Your task to perform on an android device: turn pop-ups on in chrome Image 0: 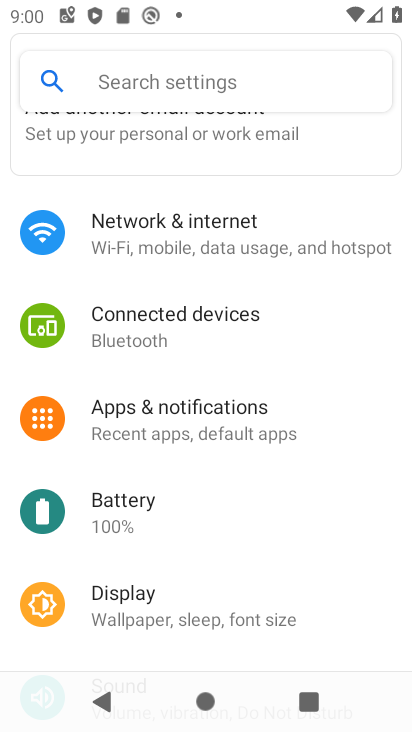
Step 0: press home button
Your task to perform on an android device: turn pop-ups on in chrome Image 1: 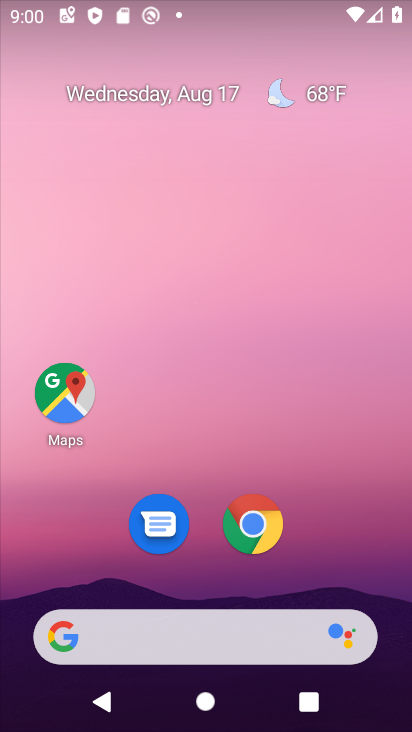
Step 1: click (256, 527)
Your task to perform on an android device: turn pop-ups on in chrome Image 2: 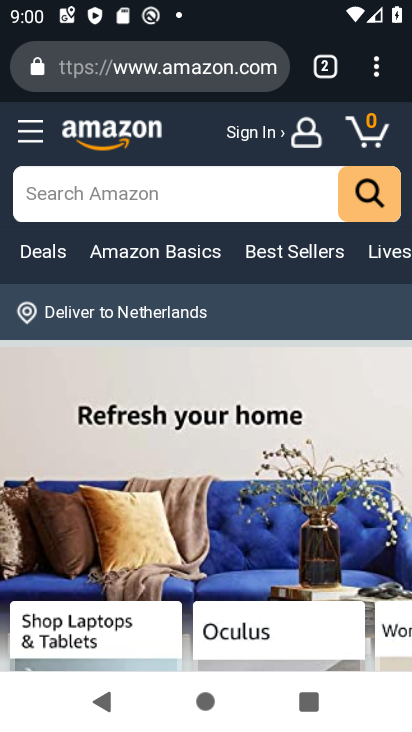
Step 2: click (382, 72)
Your task to perform on an android device: turn pop-ups on in chrome Image 3: 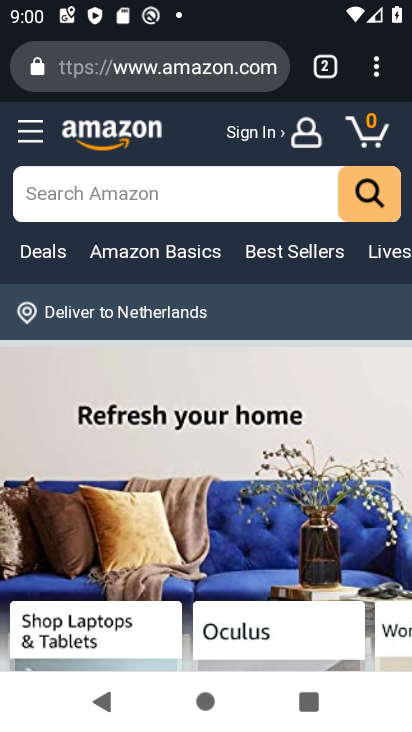
Step 3: click (376, 75)
Your task to perform on an android device: turn pop-ups on in chrome Image 4: 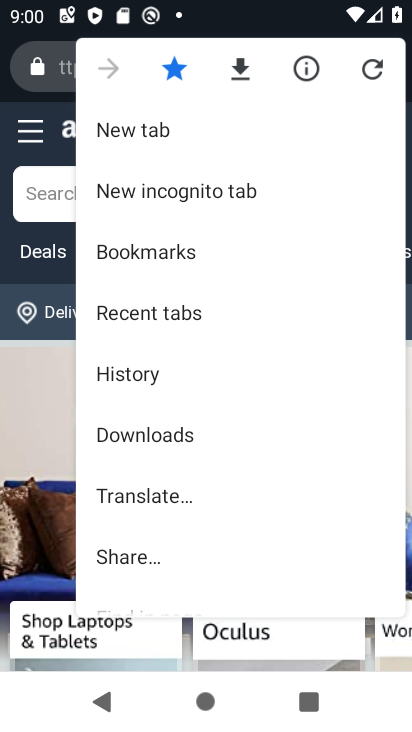
Step 4: drag from (273, 563) to (274, 107)
Your task to perform on an android device: turn pop-ups on in chrome Image 5: 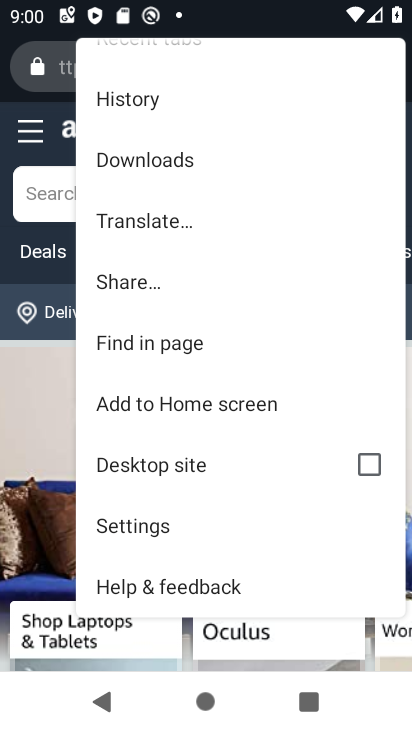
Step 5: click (163, 520)
Your task to perform on an android device: turn pop-ups on in chrome Image 6: 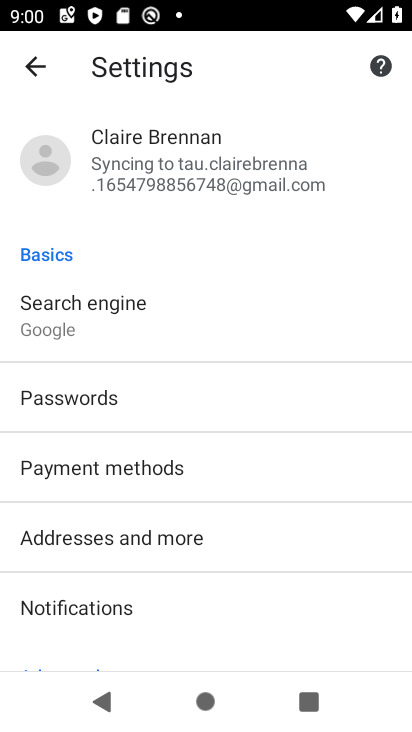
Step 6: drag from (229, 491) to (260, 63)
Your task to perform on an android device: turn pop-ups on in chrome Image 7: 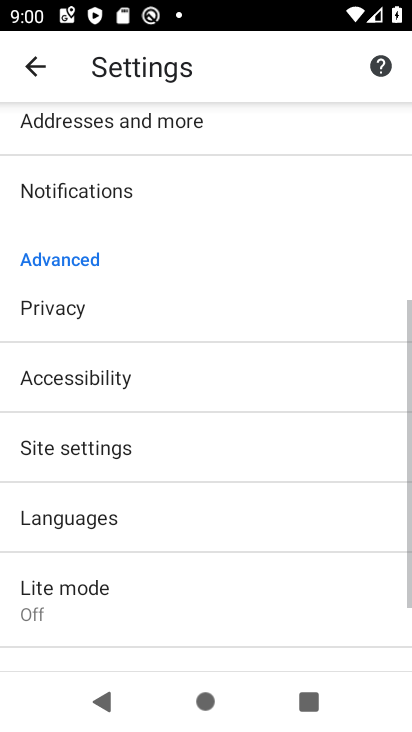
Step 7: click (222, 456)
Your task to perform on an android device: turn pop-ups on in chrome Image 8: 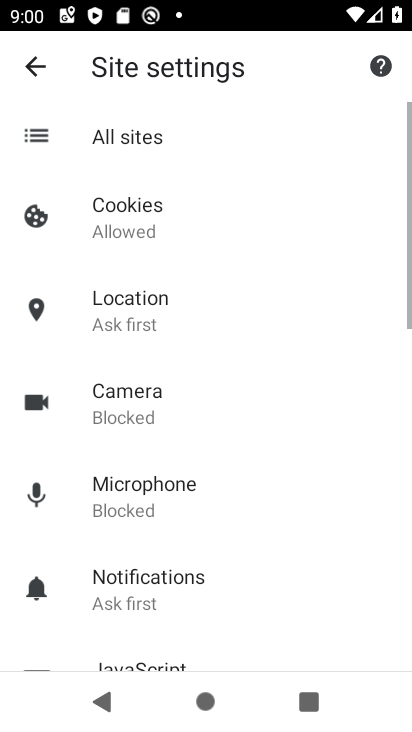
Step 8: drag from (222, 453) to (250, 137)
Your task to perform on an android device: turn pop-ups on in chrome Image 9: 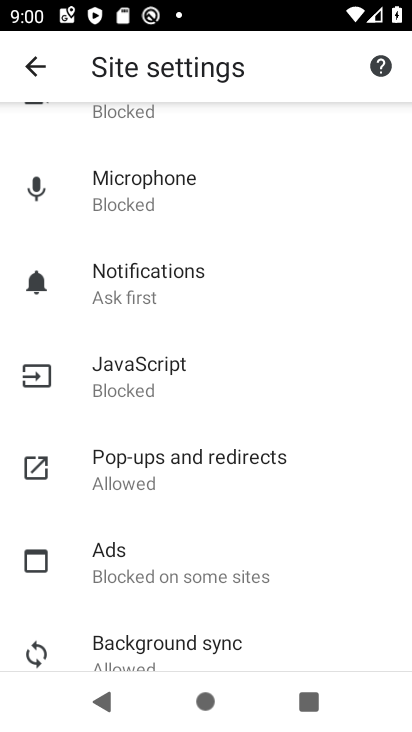
Step 9: click (233, 462)
Your task to perform on an android device: turn pop-ups on in chrome Image 10: 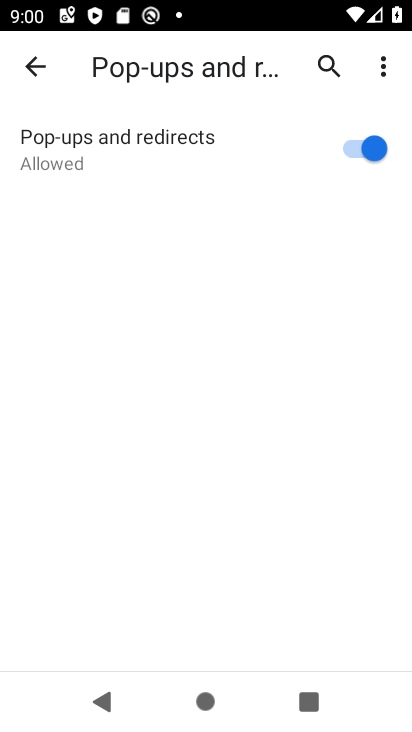
Step 10: task complete